Your task to perform on an android device: Open calendar and show me the fourth week of next month Image 0: 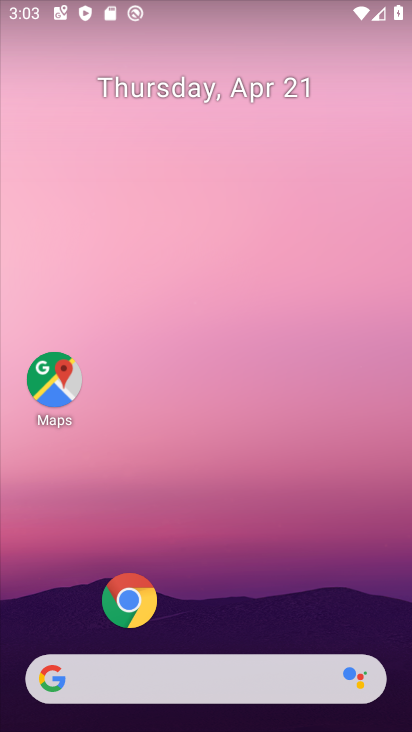
Step 0: drag from (250, 449) to (236, 150)
Your task to perform on an android device: Open calendar and show me the fourth week of next month Image 1: 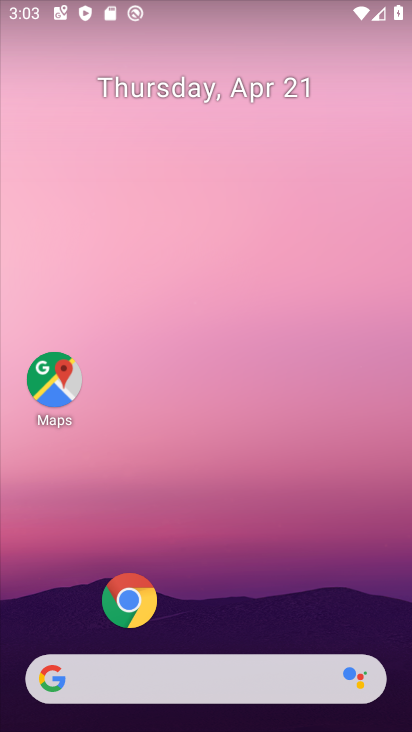
Step 1: drag from (232, 605) to (206, 24)
Your task to perform on an android device: Open calendar and show me the fourth week of next month Image 2: 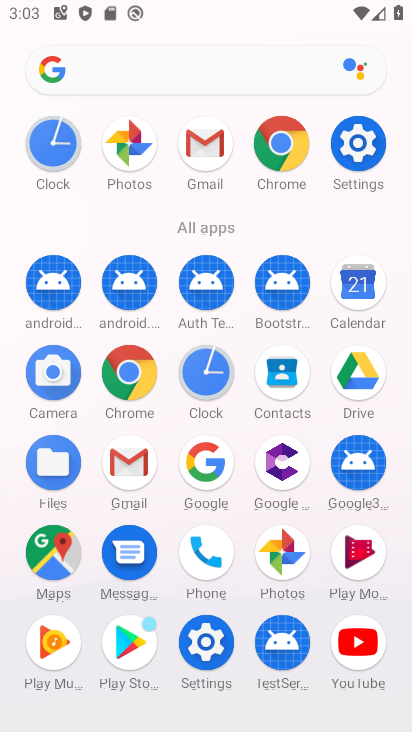
Step 2: click (355, 305)
Your task to perform on an android device: Open calendar and show me the fourth week of next month Image 3: 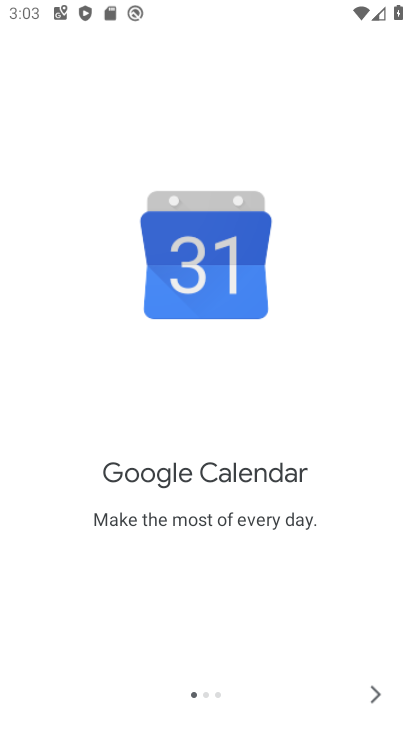
Step 3: click (375, 701)
Your task to perform on an android device: Open calendar and show me the fourth week of next month Image 4: 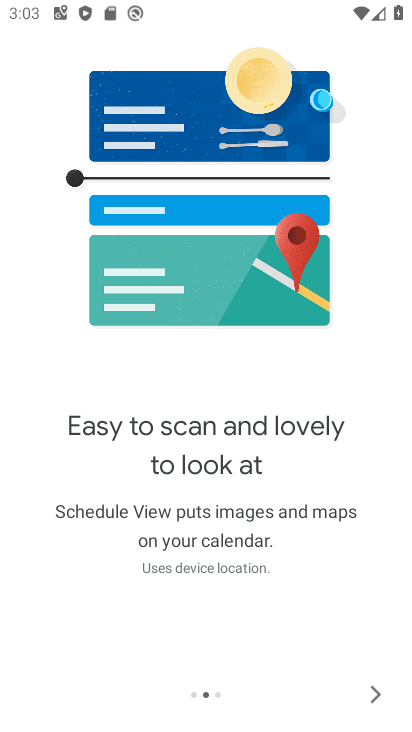
Step 4: click (374, 701)
Your task to perform on an android device: Open calendar and show me the fourth week of next month Image 5: 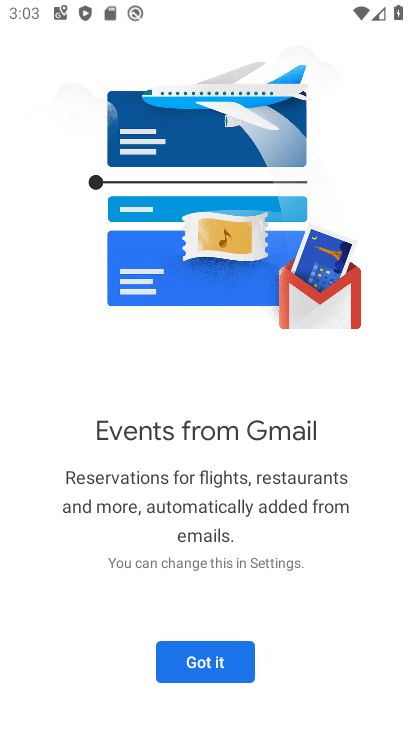
Step 5: click (374, 701)
Your task to perform on an android device: Open calendar and show me the fourth week of next month Image 6: 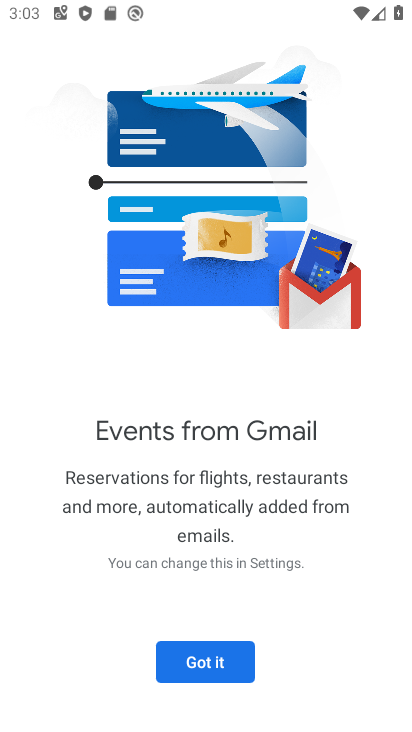
Step 6: click (245, 661)
Your task to perform on an android device: Open calendar and show me the fourth week of next month Image 7: 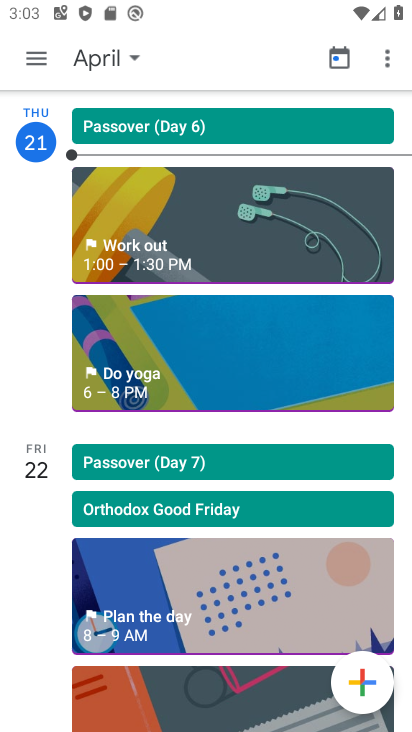
Step 7: click (107, 66)
Your task to perform on an android device: Open calendar and show me the fourth week of next month Image 8: 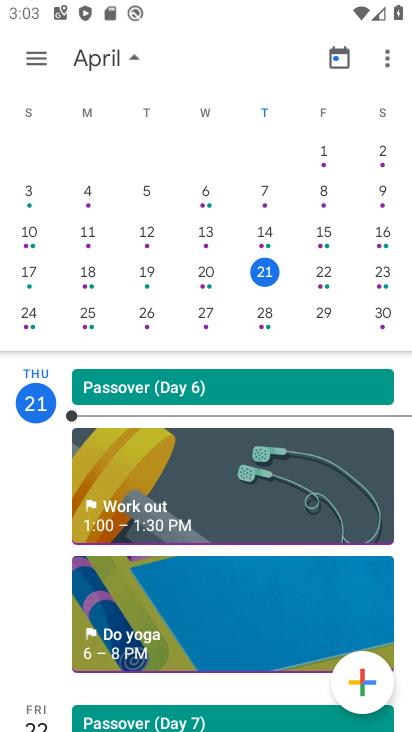
Step 8: drag from (349, 263) to (15, 271)
Your task to perform on an android device: Open calendar and show me the fourth week of next month Image 9: 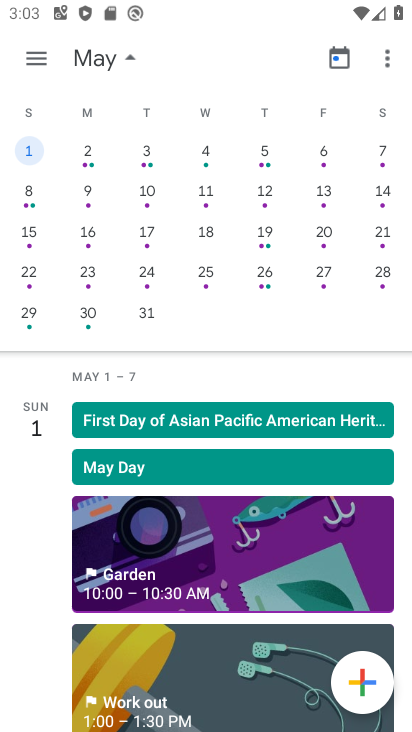
Step 9: click (33, 280)
Your task to perform on an android device: Open calendar and show me the fourth week of next month Image 10: 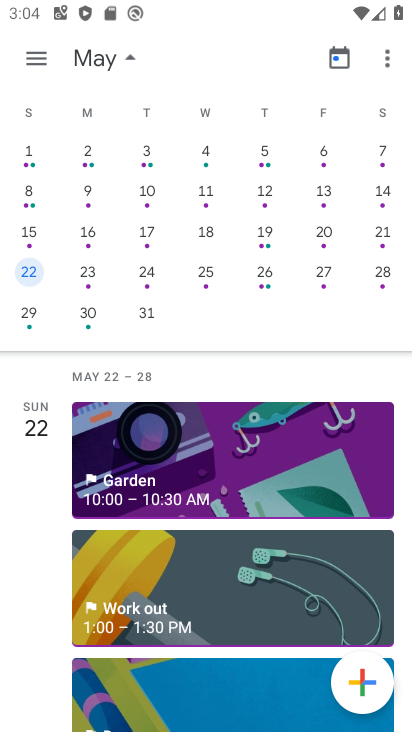
Step 10: click (142, 59)
Your task to perform on an android device: Open calendar and show me the fourth week of next month Image 11: 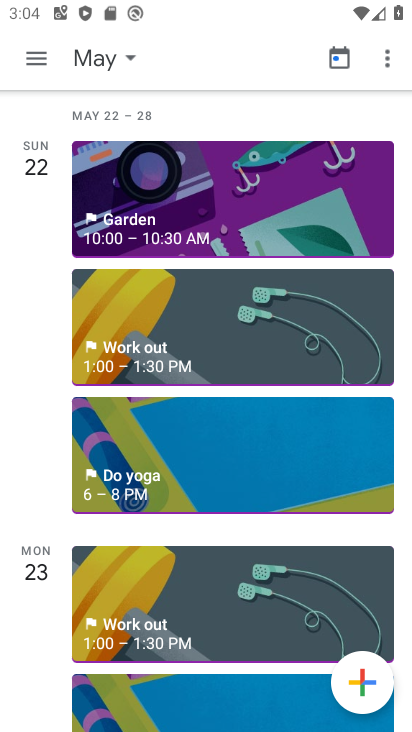
Step 11: task complete